Your task to perform on an android device: open a new tab in the chrome app Image 0: 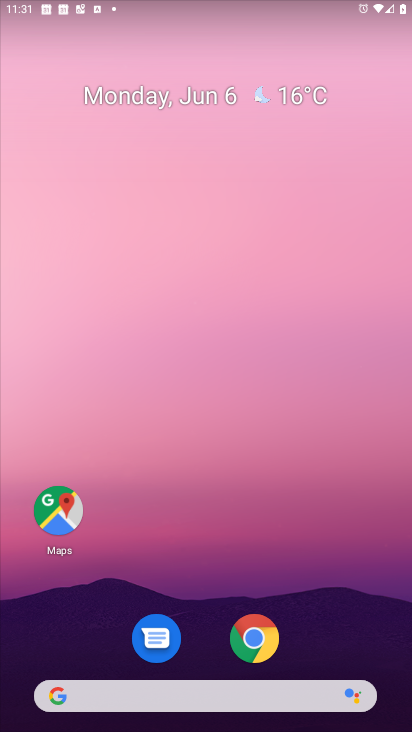
Step 0: drag from (216, 707) to (332, 144)
Your task to perform on an android device: open a new tab in the chrome app Image 1: 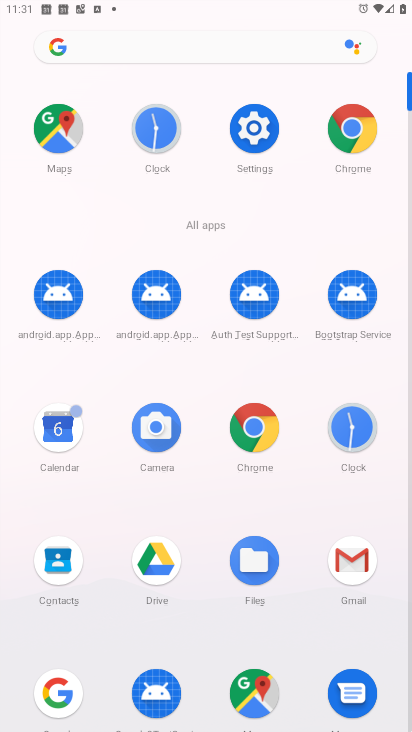
Step 1: click (243, 454)
Your task to perform on an android device: open a new tab in the chrome app Image 2: 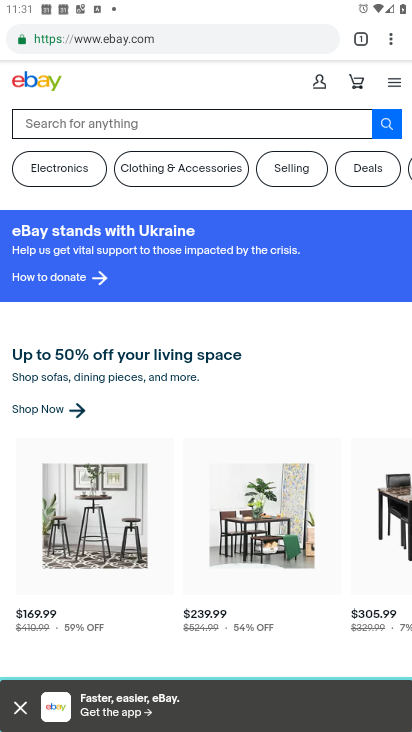
Step 2: click (389, 40)
Your task to perform on an android device: open a new tab in the chrome app Image 3: 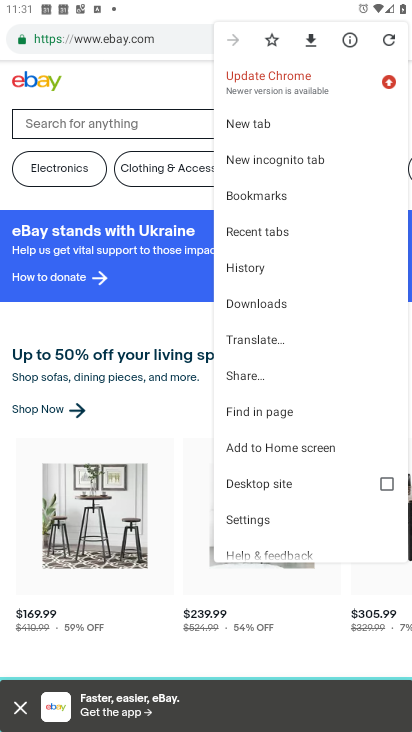
Step 3: click (253, 116)
Your task to perform on an android device: open a new tab in the chrome app Image 4: 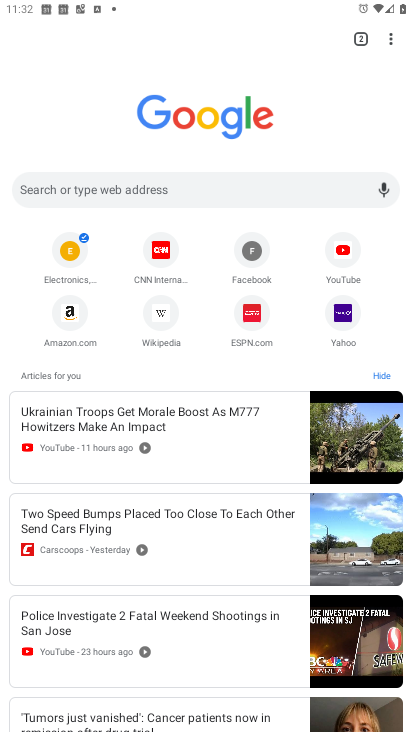
Step 4: task complete